Your task to perform on an android device: toggle priority inbox in the gmail app Image 0: 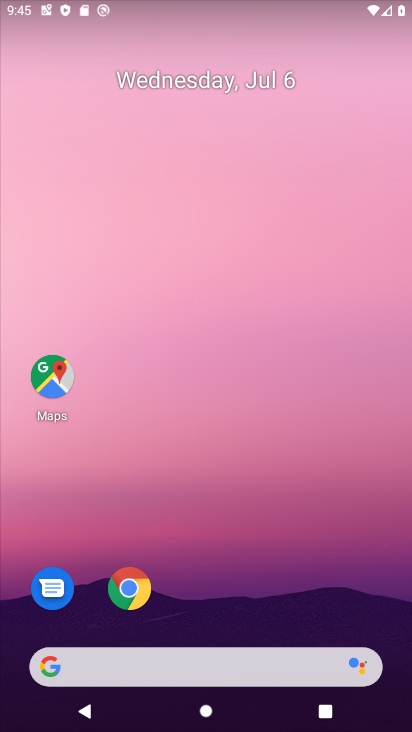
Step 0: drag from (253, 627) to (302, 44)
Your task to perform on an android device: toggle priority inbox in the gmail app Image 1: 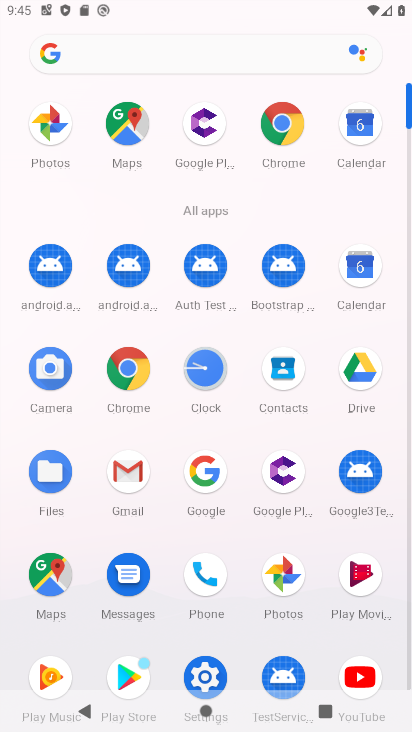
Step 1: click (126, 143)
Your task to perform on an android device: toggle priority inbox in the gmail app Image 2: 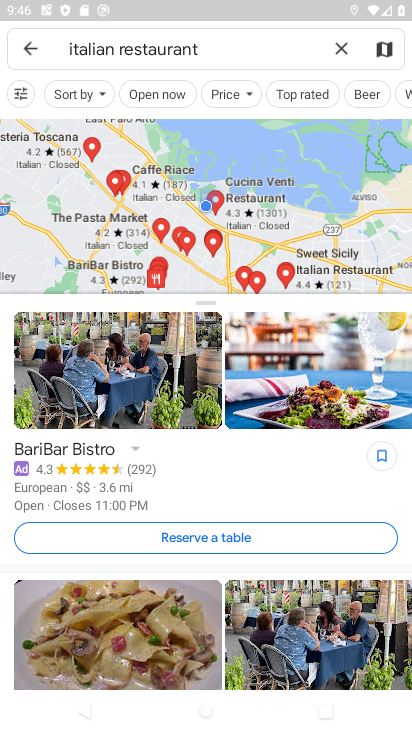
Step 2: click (332, 51)
Your task to perform on an android device: toggle priority inbox in the gmail app Image 3: 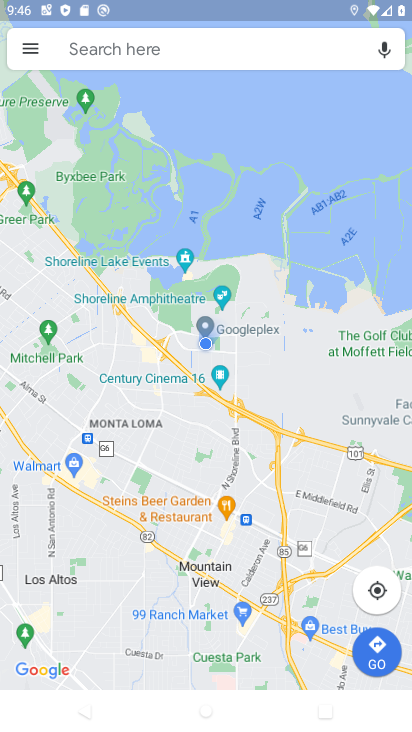
Step 3: press back button
Your task to perform on an android device: toggle priority inbox in the gmail app Image 4: 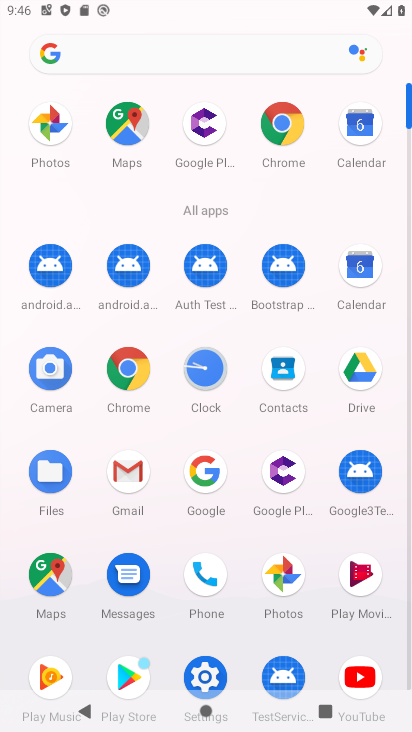
Step 4: click (119, 456)
Your task to perform on an android device: toggle priority inbox in the gmail app Image 5: 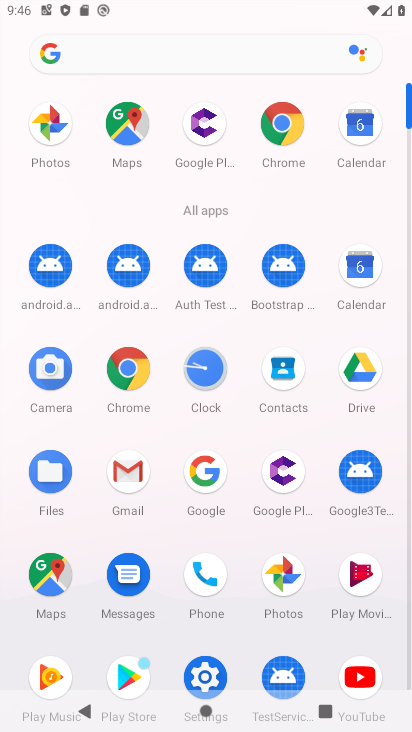
Step 5: click (129, 470)
Your task to perform on an android device: toggle priority inbox in the gmail app Image 6: 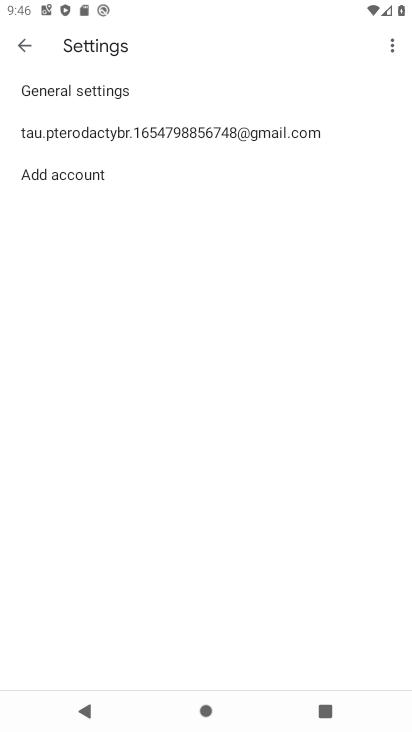
Step 6: click (19, 42)
Your task to perform on an android device: toggle priority inbox in the gmail app Image 7: 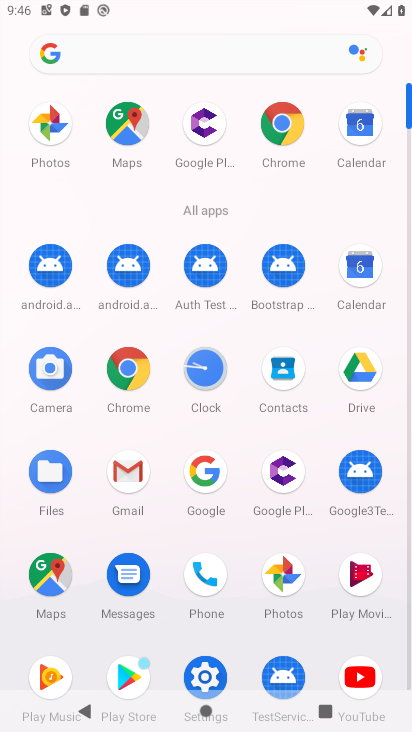
Step 7: click (135, 468)
Your task to perform on an android device: toggle priority inbox in the gmail app Image 8: 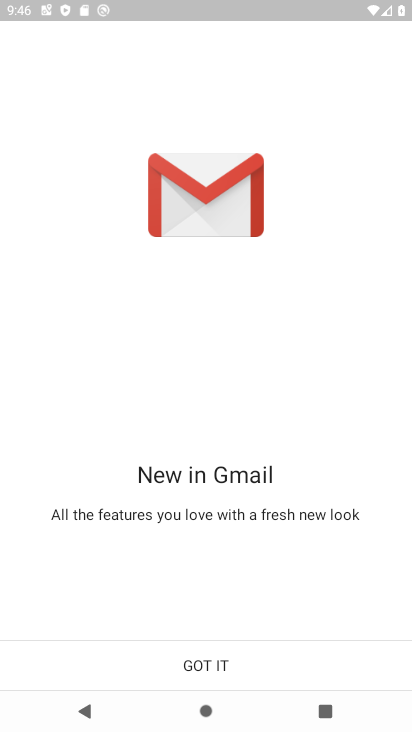
Step 8: click (214, 668)
Your task to perform on an android device: toggle priority inbox in the gmail app Image 9: 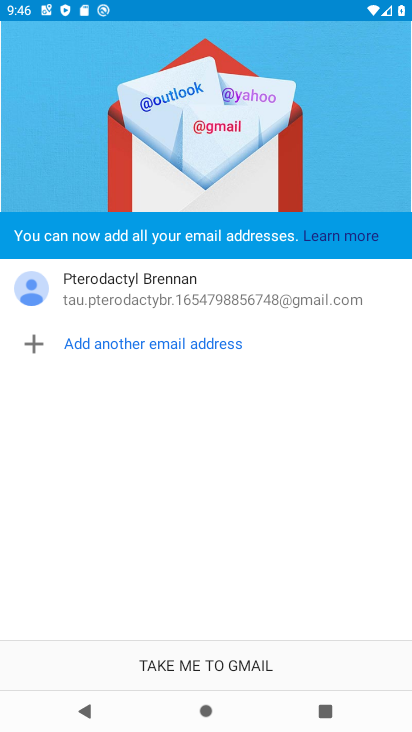
Step 9: click (214, 668)
Your task to perform on an android device: toggle priority inbox in the gmail app Image 10: 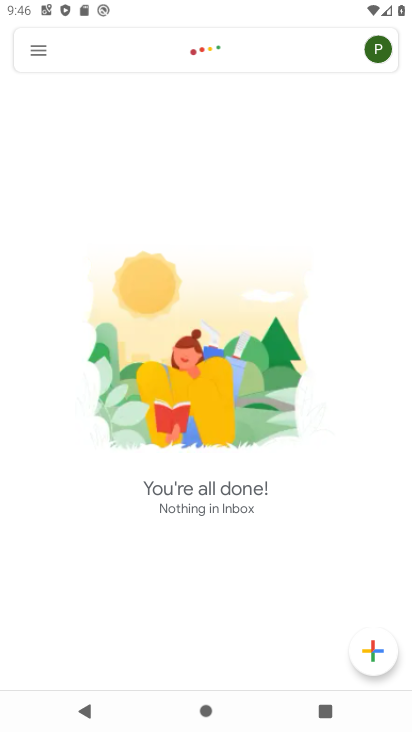
Step 10: click (40, 49)
Your task to perform on an android device: toggle priority inbox in the gmail app Image 11: 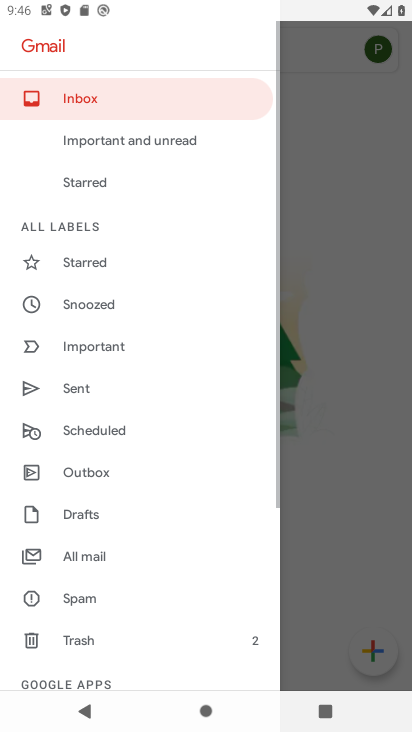
Step 11: drag from (136, 598) to (244, 74)
Your task to perform on an android device: toggle priority inbox in the gmail app Image 12: 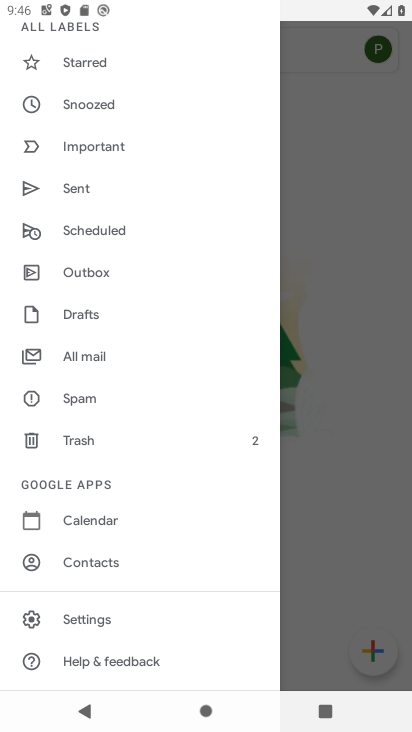
Step 12: click (127, 613)
Your task to perform on an android device: toggle priority inbox in the gmail app Image 13: 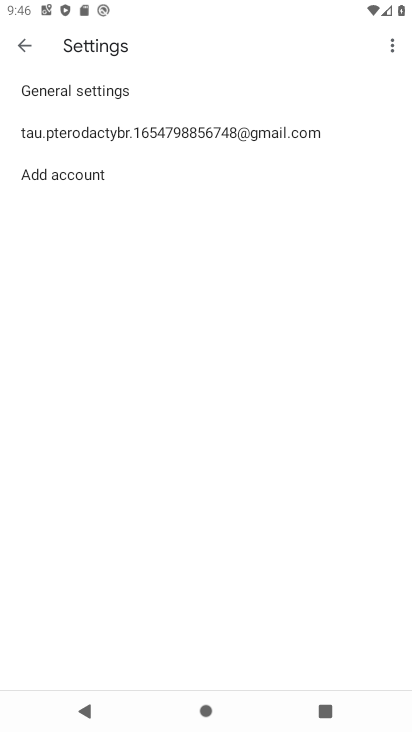
Step 13: click (149, 131)
Your task to perform on an android device: toggle priority inbox in the gmail app Image 14: 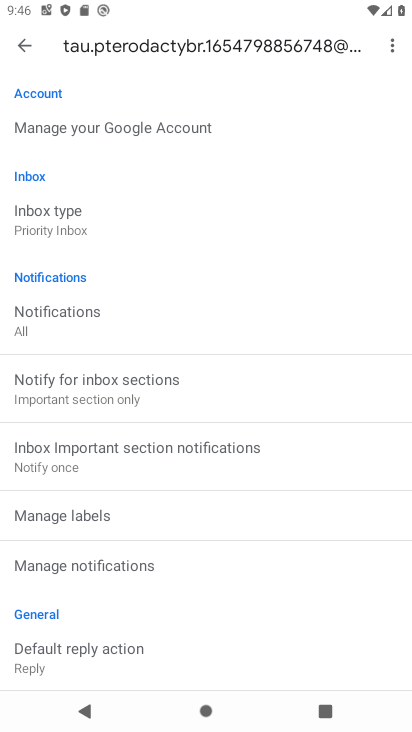
Step 14: click (56, 215)
Your task to perform on an android device: toggle priority inbox in the gmail app Image 15: 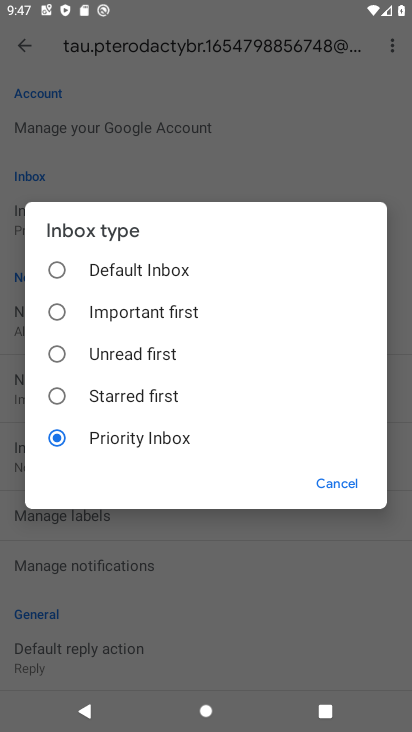
Step 15: click (54, 436)
Your task to perform on an android device: toggle priority inbox in the gmail app Image 16: 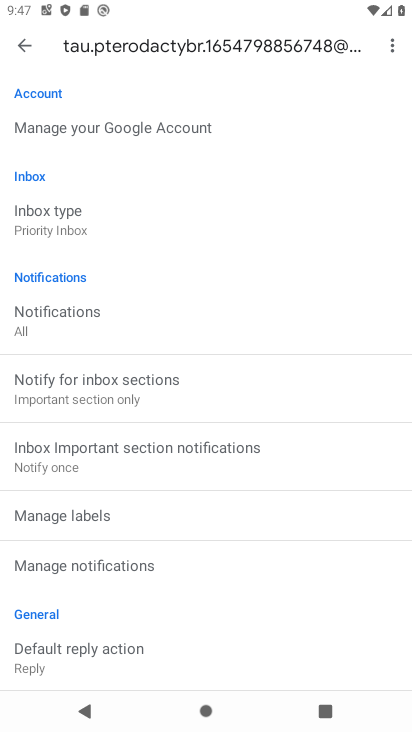
Step 16: task complete